Your task to perform on an android device: View the shopping cart on bestbuy.com. Image 0: 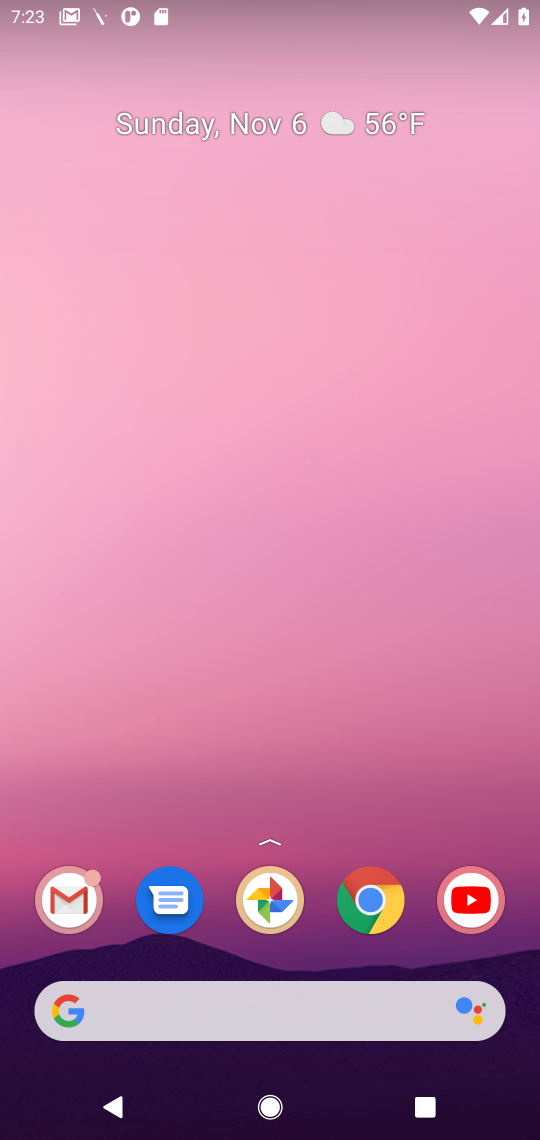
Step 0: drag from (315, 956) to (302, 29)
Your task to perform on an android device: View the shopping cart on bestbuy.com. Image 1: 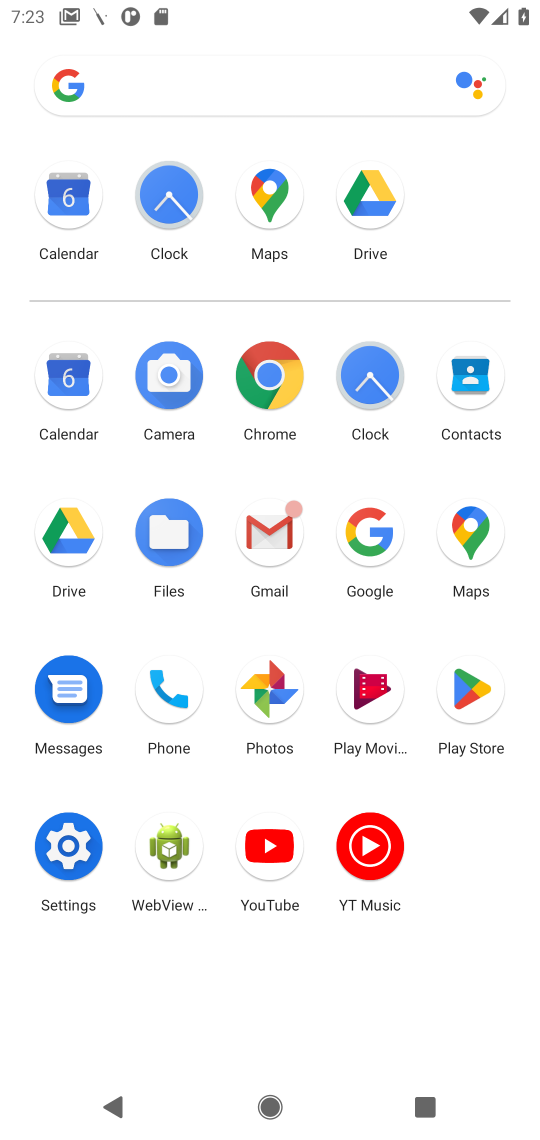
Step 1: click (268, 374)
Your task to perform on an android device: View the shopping cart on bestbuy.com. Image 2: 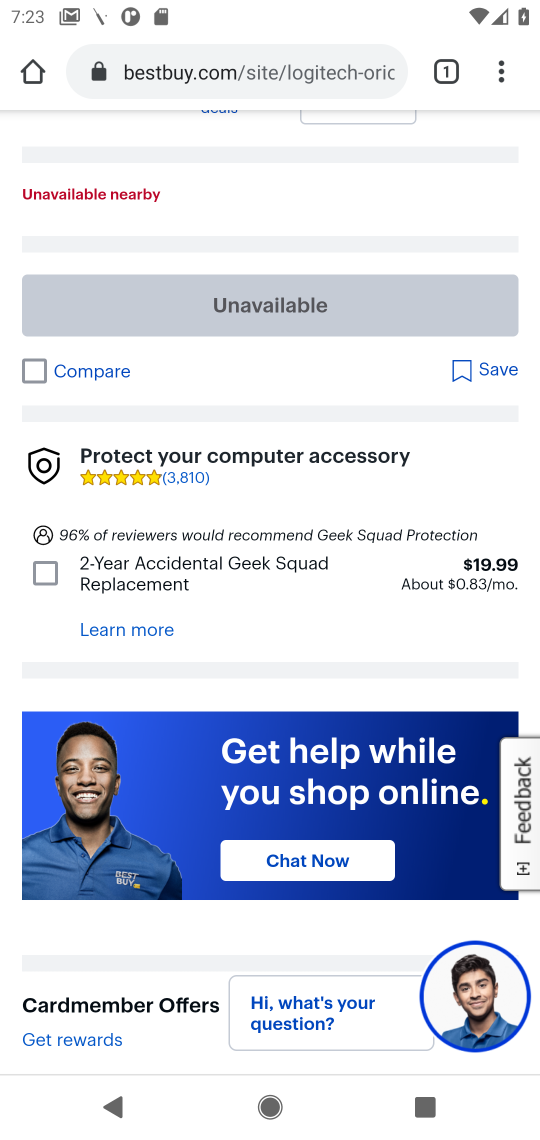
Step 2: click (261, 65)
Your task to perform on an android device: View the shopping cart on bestbuy.com. Image 3: 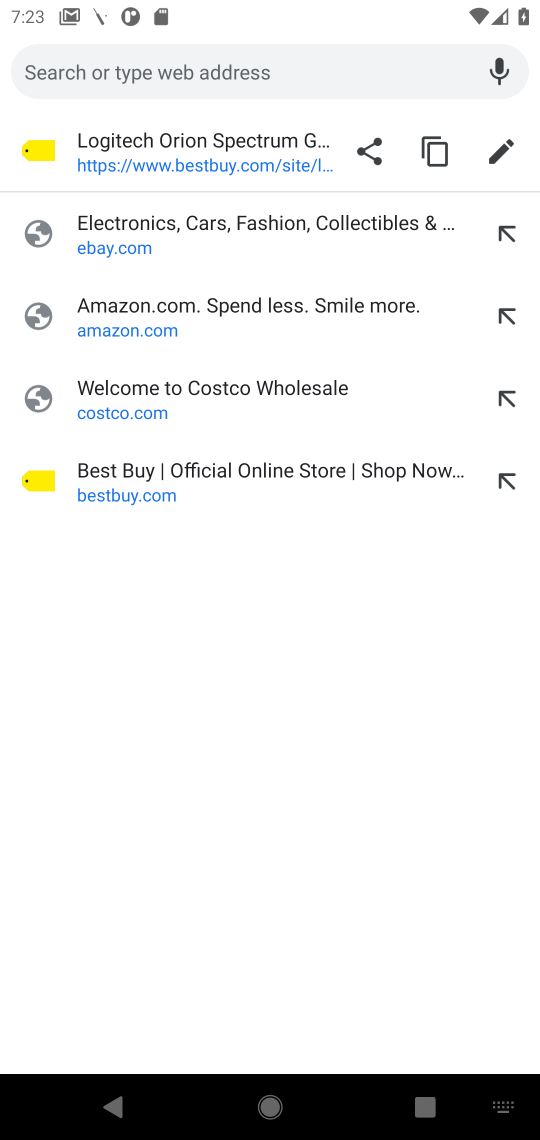
Step 3: type "bestbuy.com"
Your task to perform on an android device: View the shopping cart on bestbuy.com. Image 4: 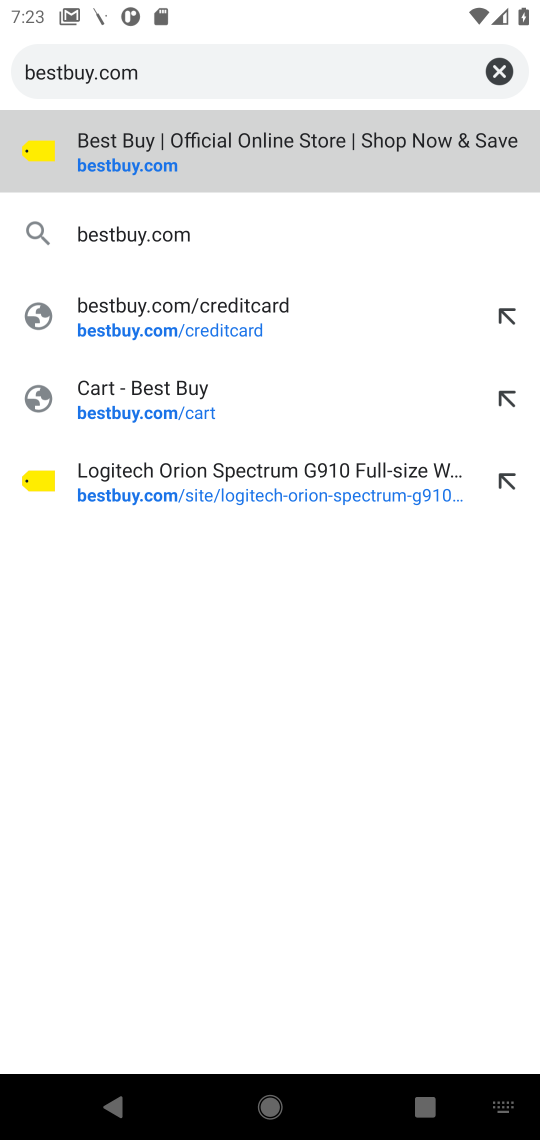
Step 4: press enter
Your task to perform on an android device: View the shopping cart on bestbuy.com. Image 5: 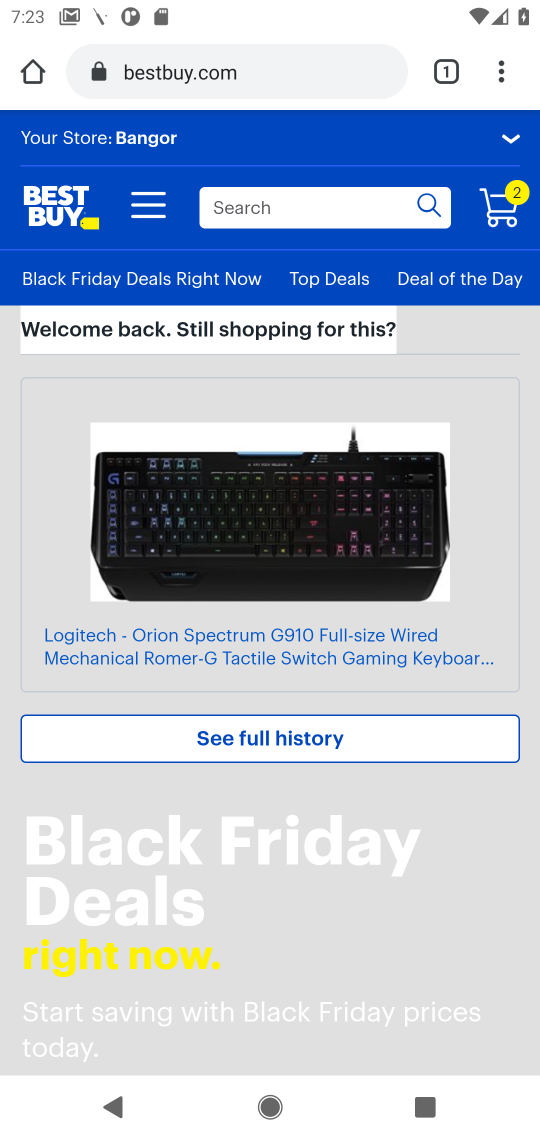
Step 5: click (485, 214)
Your task to perform on an android device: View the shopping cart on bestbuy.com. Image 6: 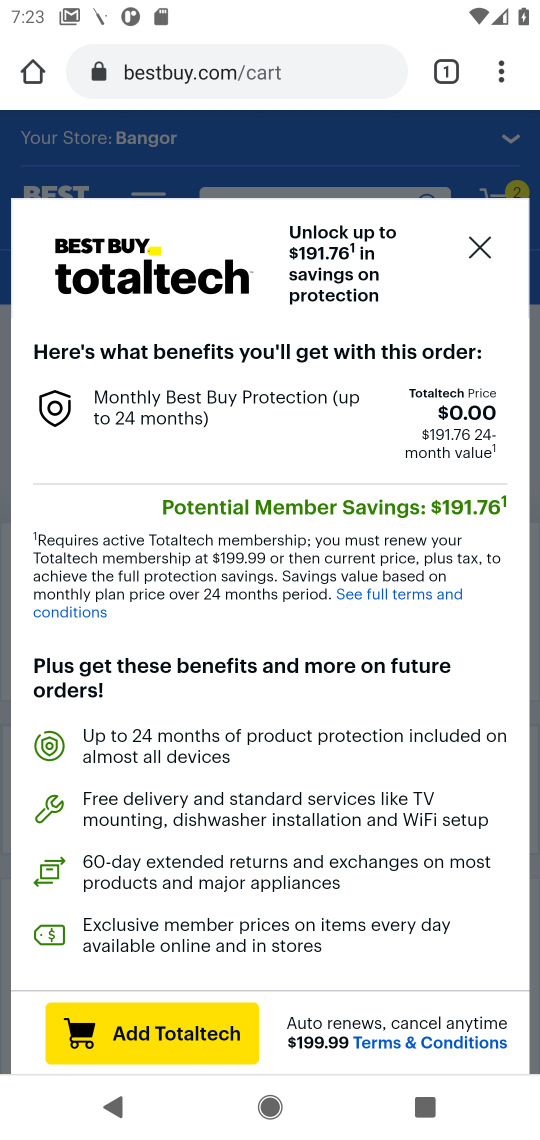
Step 6: click (481, 255)
Your task to perform on an android device: View the shopping cart on bestbuy.com. Image 7: 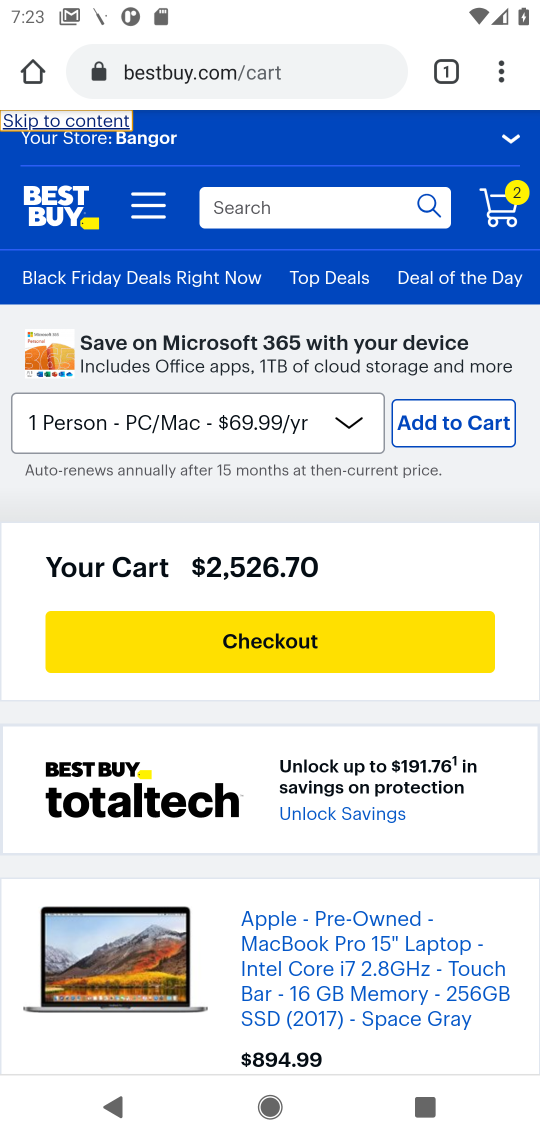
Step 7: task complete